Your task to perform on an android device: Open calendar and show me the second week of next month Image 0: 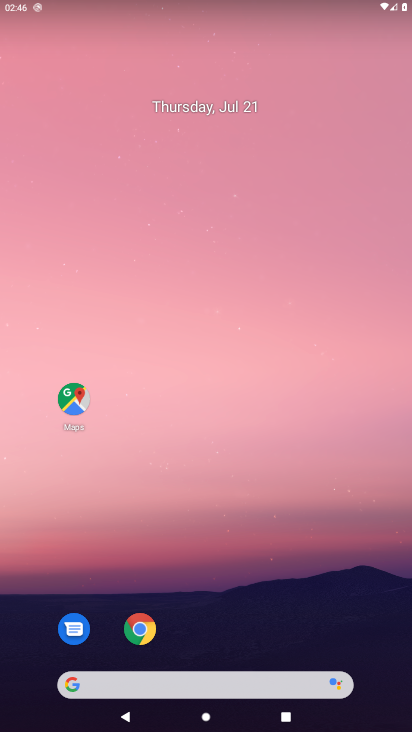
Step 0: drag from (132, 360) to (155, 242)
Your task to perform on an android device: Open calendar and show me the second week of next month Image 1: 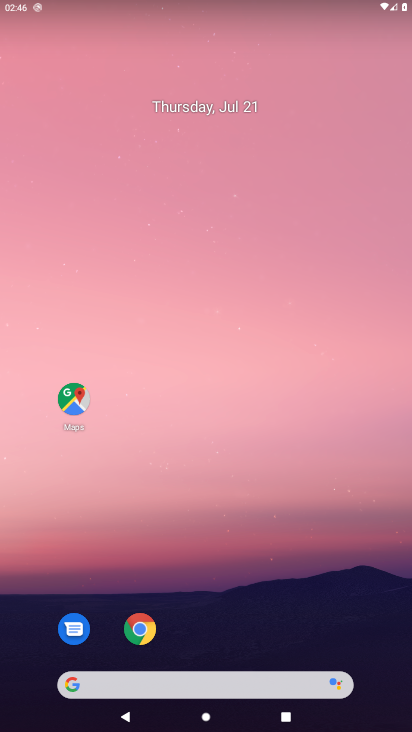
Step 1: drag from (34, 695) to (230, 81)
Your task to perform on an android device: Open calendar and show me the second week of next month Image 2: 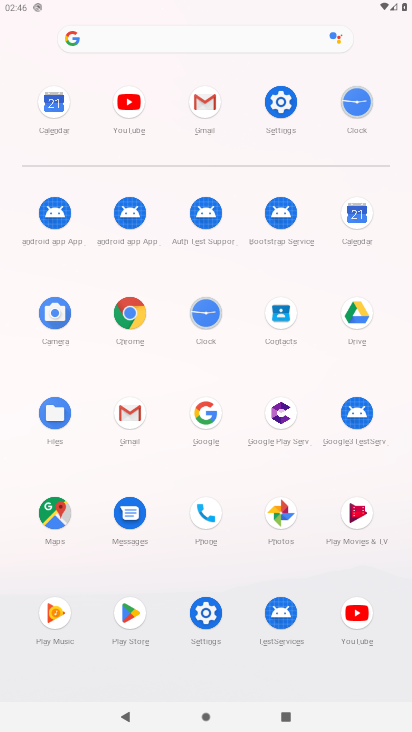
Step 2: click (353, 221)
Your task to perform on an android device: Open calendar and show me the second week of next month Image 3: 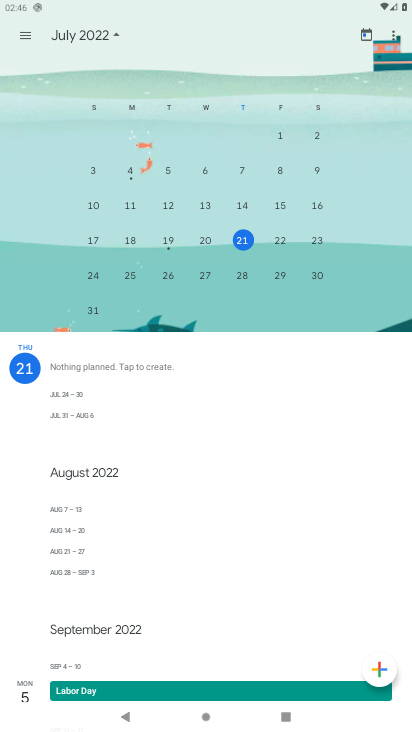
Step 3: drag from (347, 139) to (13, 309)
Your task to perform on an android device: Open calendar and show me the second week of next month Image 4: 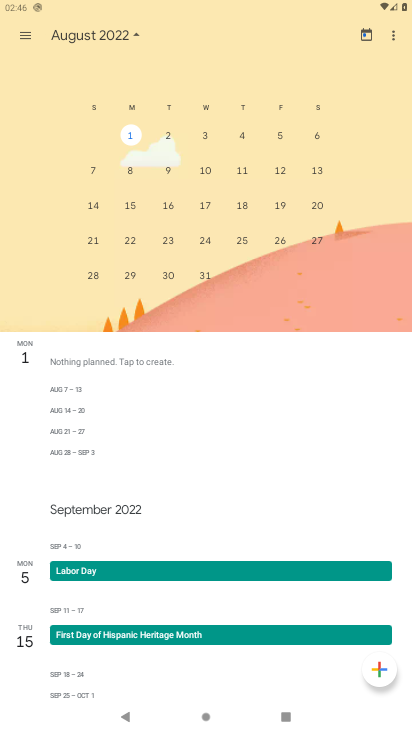
Step 4: click (126, 163)
Your task to perform on an android device: Open calendar and show me the second week of next month Image 5: 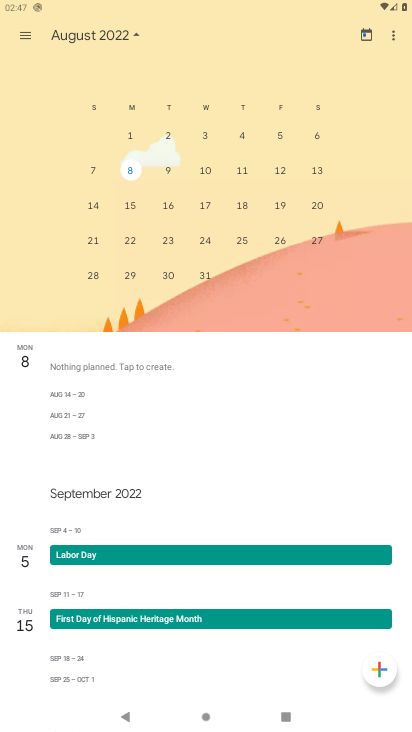
Step 5: task complete